Your task to perform on an android device: When is my next meeting? Image 0: 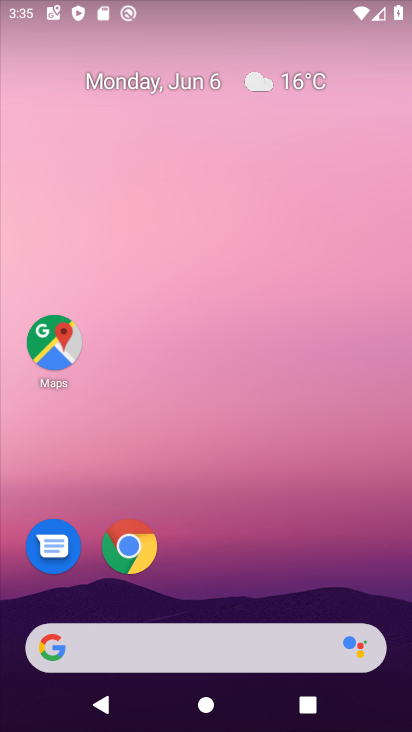
Step 0: drag from (357, 470) to (409, 29)
Your task to perform on an android device: When is my next meeting? Image 1: 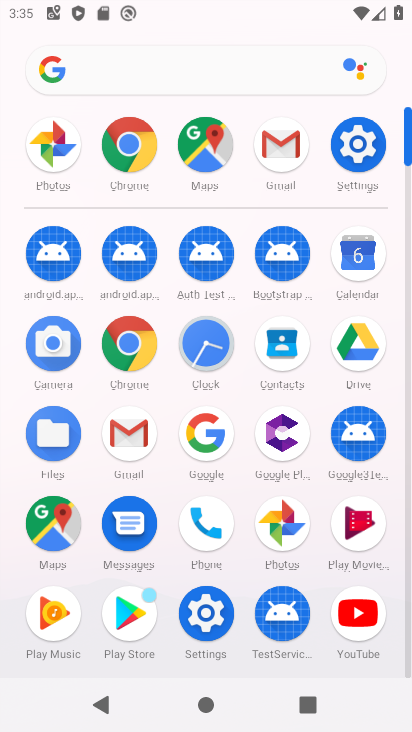
Step 1: click (357, 258)
Your task to perform on an android device: When is my next meeting? Image 2: 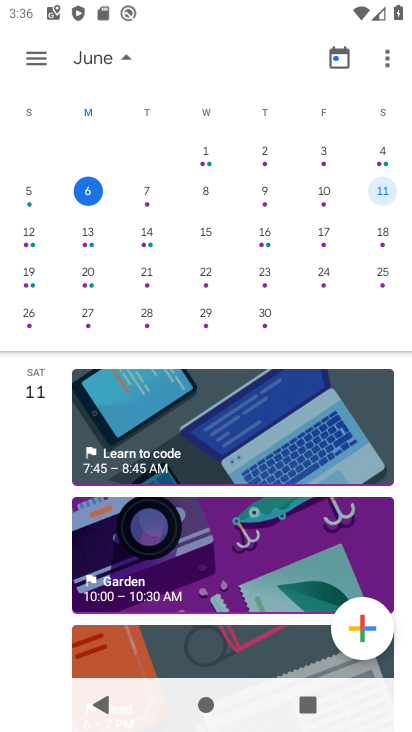
Step 2: click (152, 197)
Your task to perform on an android device: When is my next meeting? Image 3: 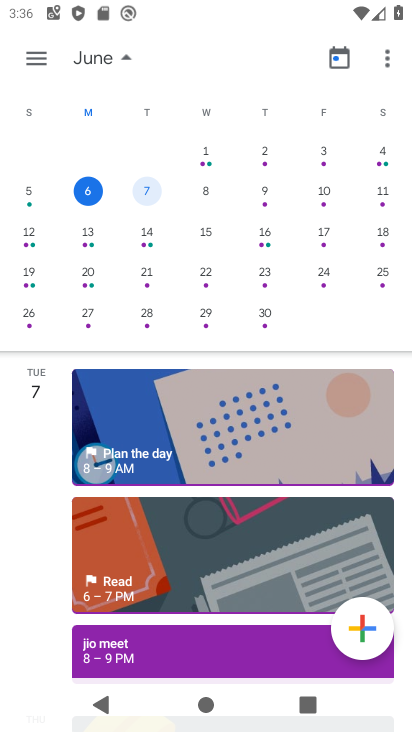
Step 3: task complete